Your task to perform on an android device: change the upload size in google photos Image 0: 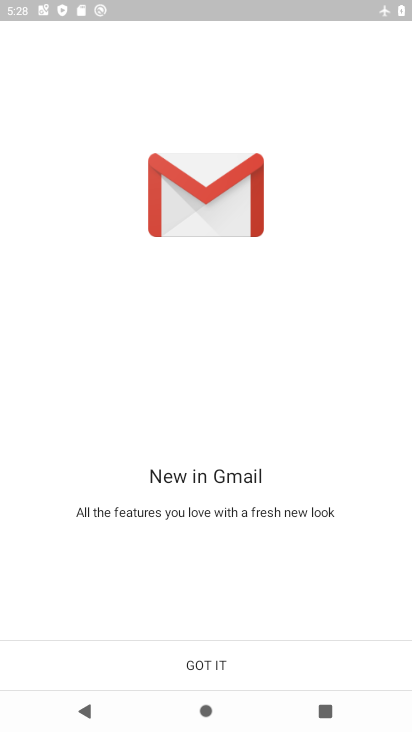
Step 0: drag from (236, 599) to (246, 283)
Your task to perform on an android device: change the upload size in google photos Image 1: 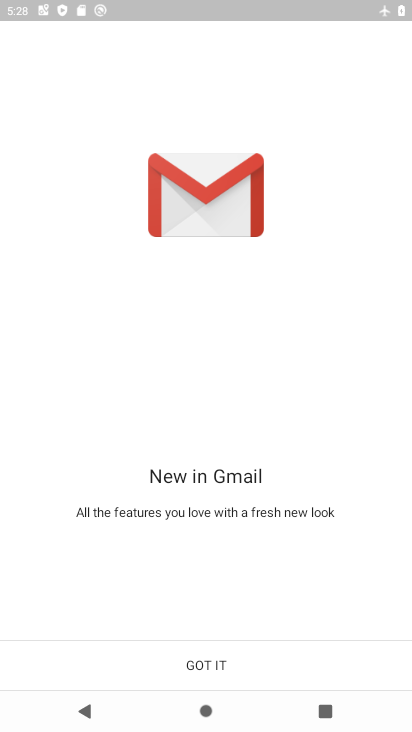
Step 1: click (193, 662)
Your task to perform on an android device: change the upload size in google photos Image 2: 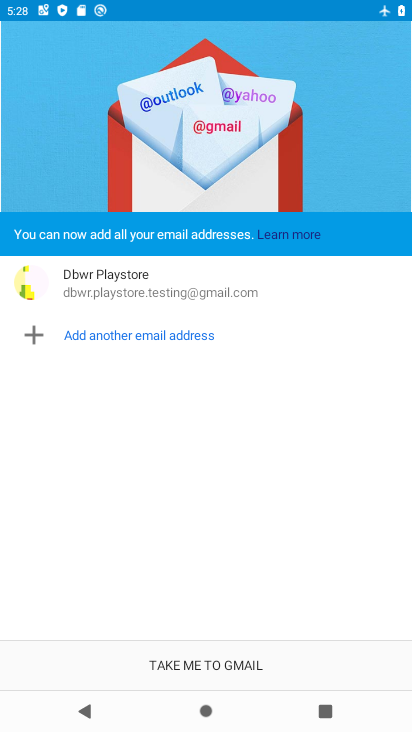
Step 2: click (202, 656)
Your task to perform on an android device: change the upload size in google photos Image 3: 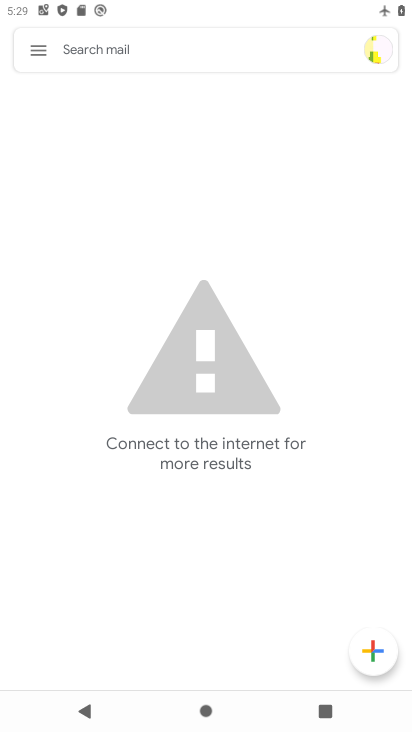
Step 3: task complete